Your task to perform on an android device: check storage Image 0: 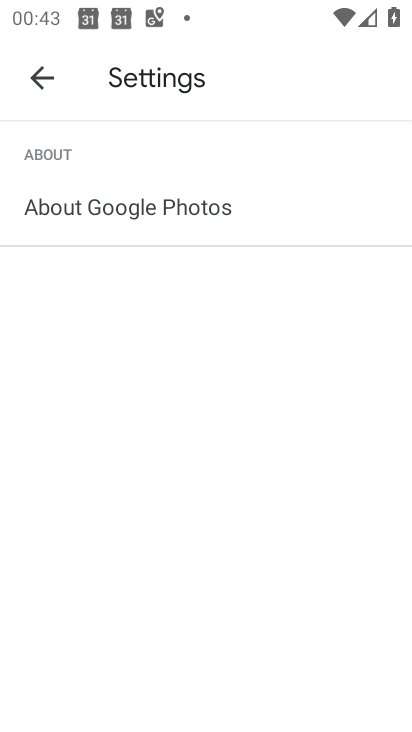
Step 0: press home button
Your task to perform on an android device: check storage Image 1: 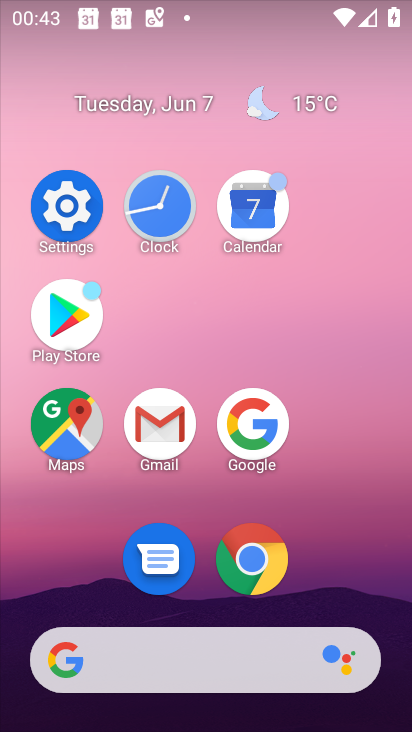
Step 1: click (72, 206)
Your task to perform on an android device: check storage Image 2: 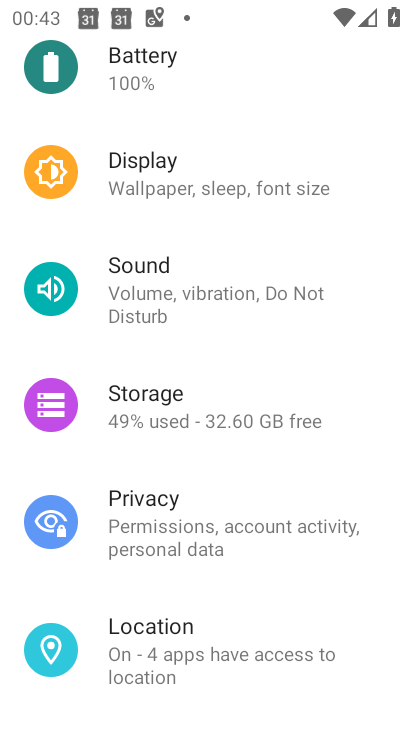
Step 2: drag from (278, 258) to (234, 658)
Your task to perform on an android device: check storage Image 3: 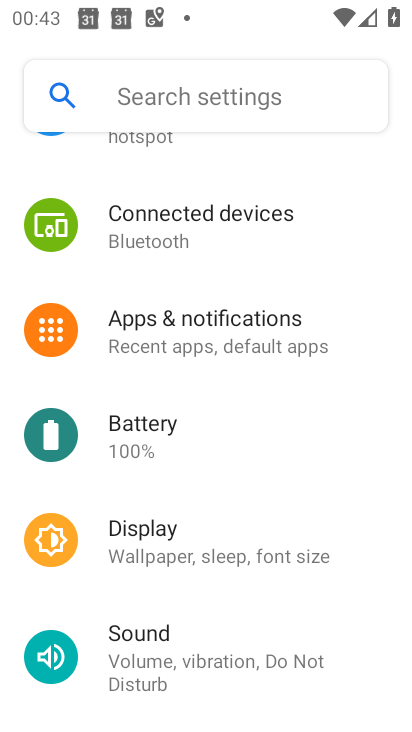
Step 3: drag from (260, 289) to (195, 571)
Your task to perform on an android device: check storage Image 4: 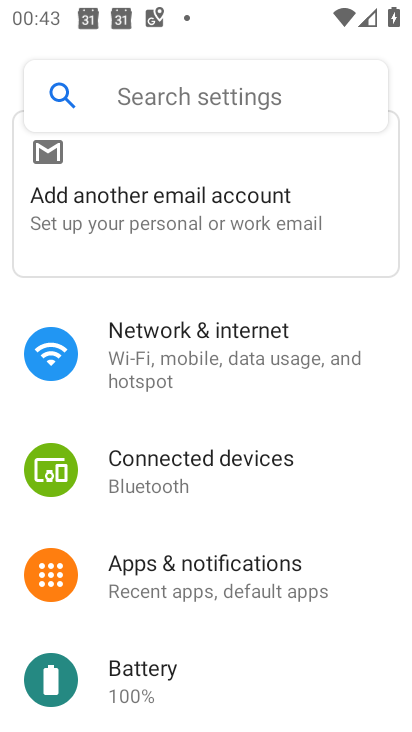
Step 4: drag from (213, 542) to (211, 191)
Your task to perform on an android device: check storage Image 5: 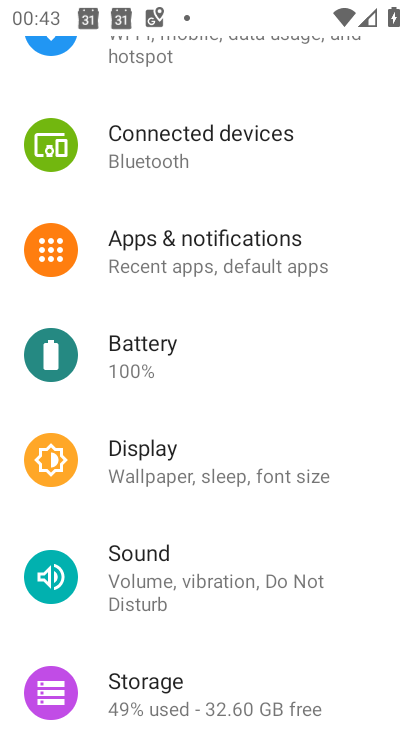
Step 5: drag from (197, 521) to (222, 215)
Your task to perform on an android device: check storage Image 6: 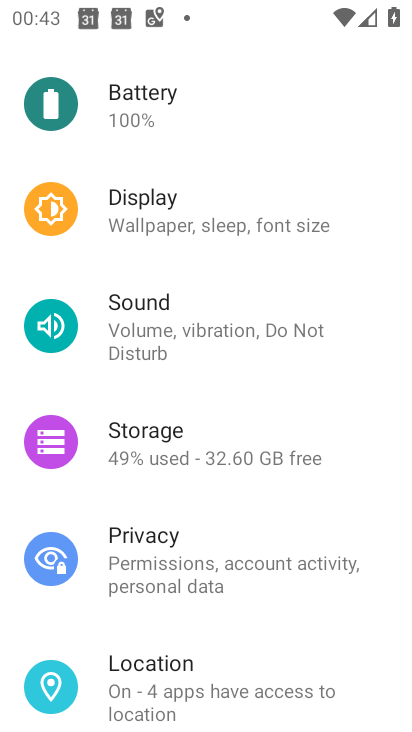
Step 6: click (165, 467)
Your task to perform on an android device: check storage Image 7: 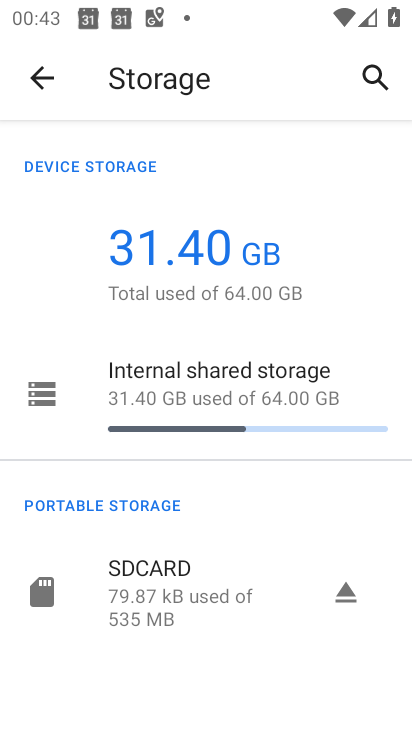
Step 7: task complete